Your task to perform on an android device: Search for a new eyeshadow on Sephora Image 0: 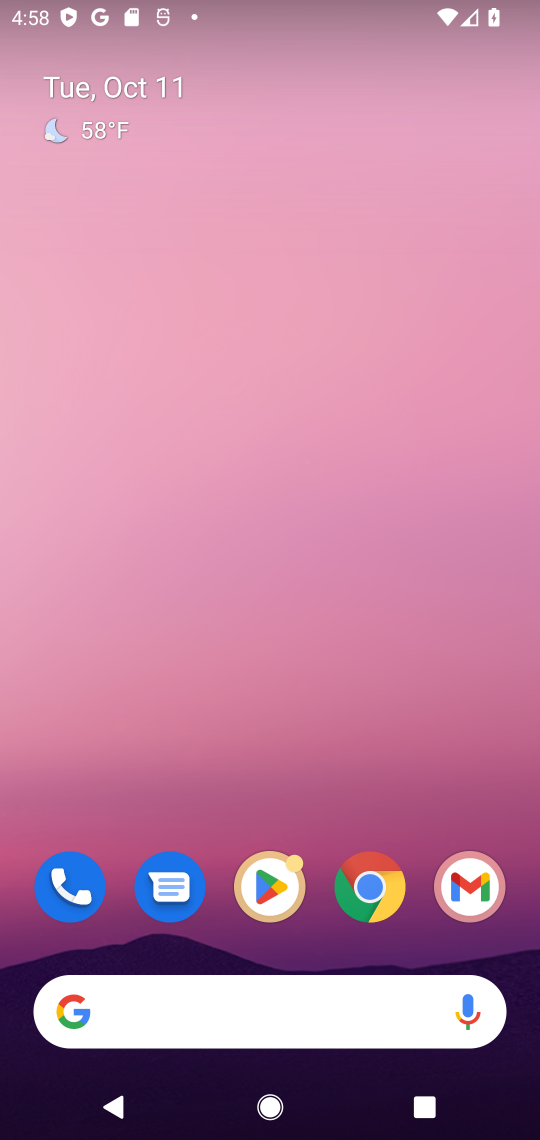
Step 0: click (295, 981)
Your task to perform on an android device: Search for a new eyeshadow on Sephora Image 1: 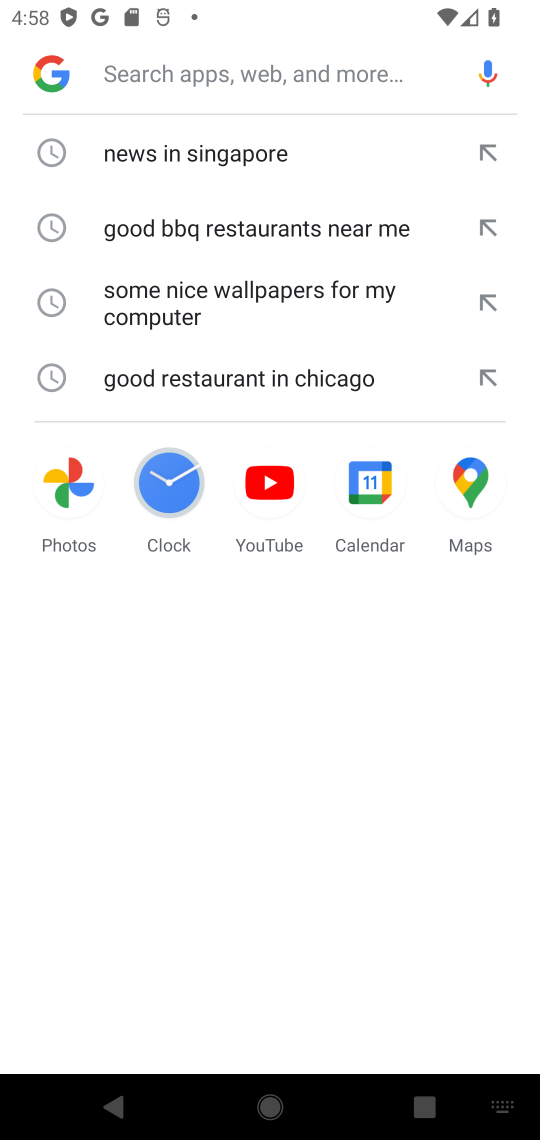
Step 1: type "new eyeshadow on Sephora"
Your task to perform on an android device: Search for a new eyeshadow on Sephora Image 2: 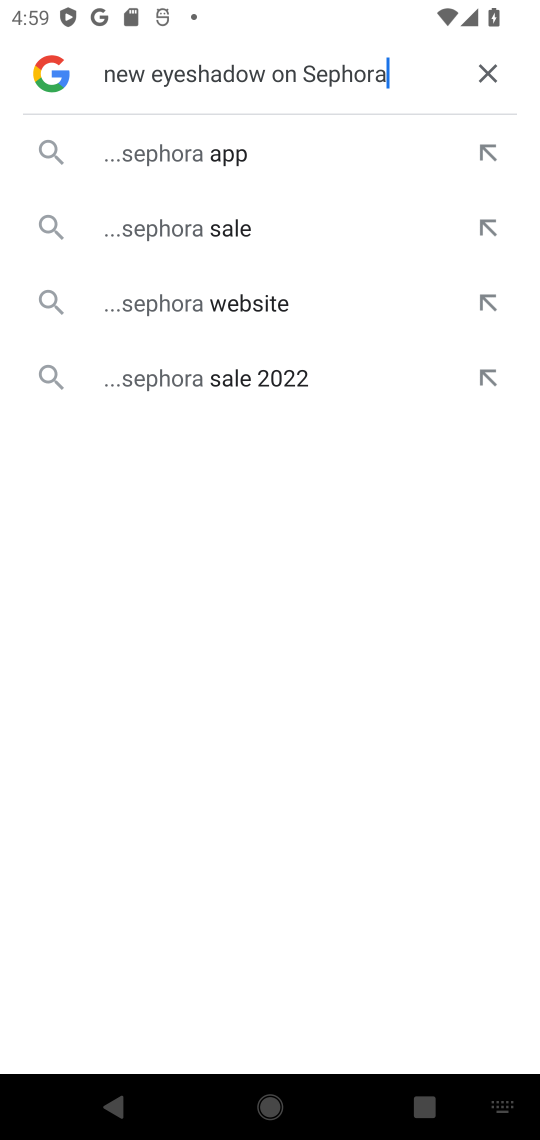
Step 2: press enter
Your task to perform on an android device: Search for a new eyeshadow on Sephora Image 3: 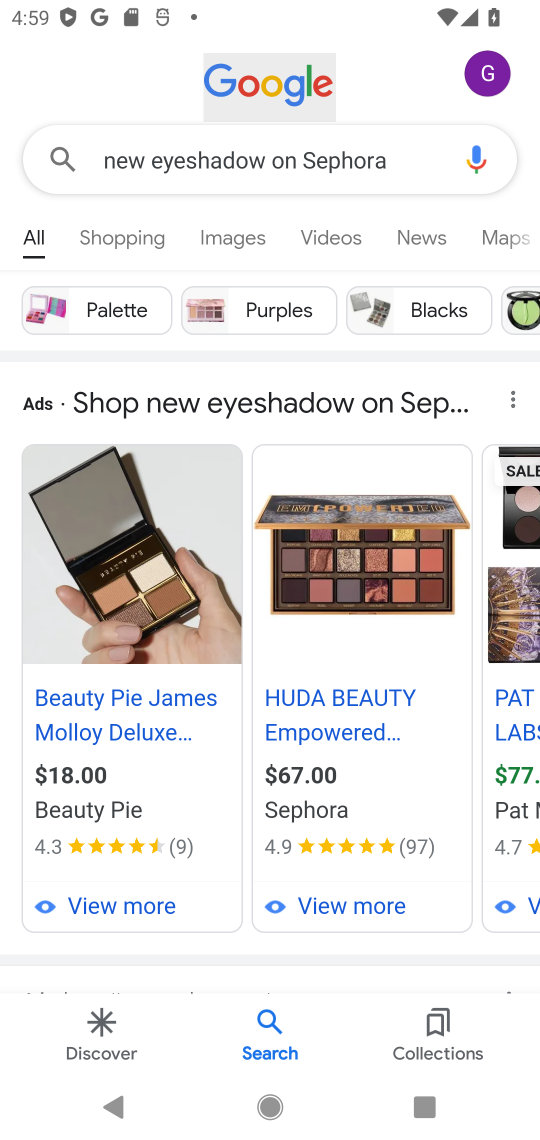
Step 3: drag from (245, 940) to (267, 554)
Your task to perform on an android device: Search for a new eyeshadow on Sephora Image 4: 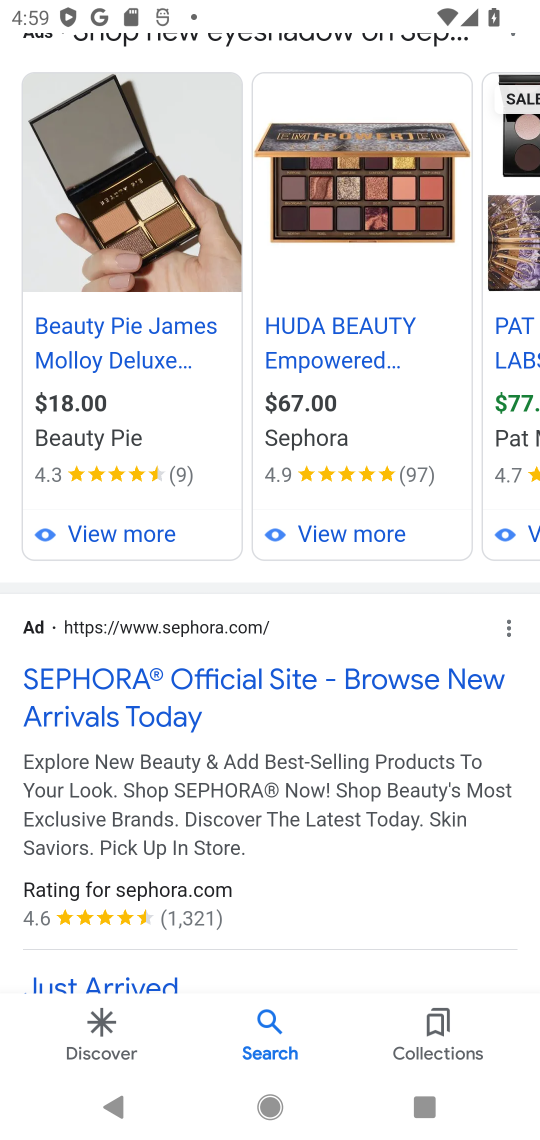
Step 4: click (267, 501)
Your task to perform on an android device: Search for a new eyeshadow on Sephora Image 5: 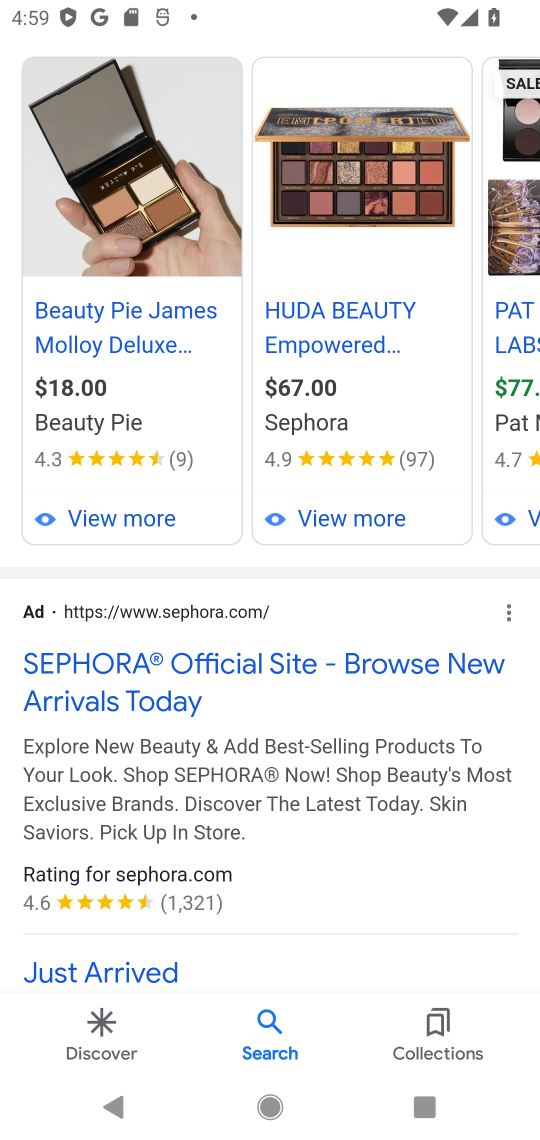
Step 5: drag from (279, 884) to (288, 437)
Your task to perform on an android device: Search for a new eyeshadow on Sephora Image 6: 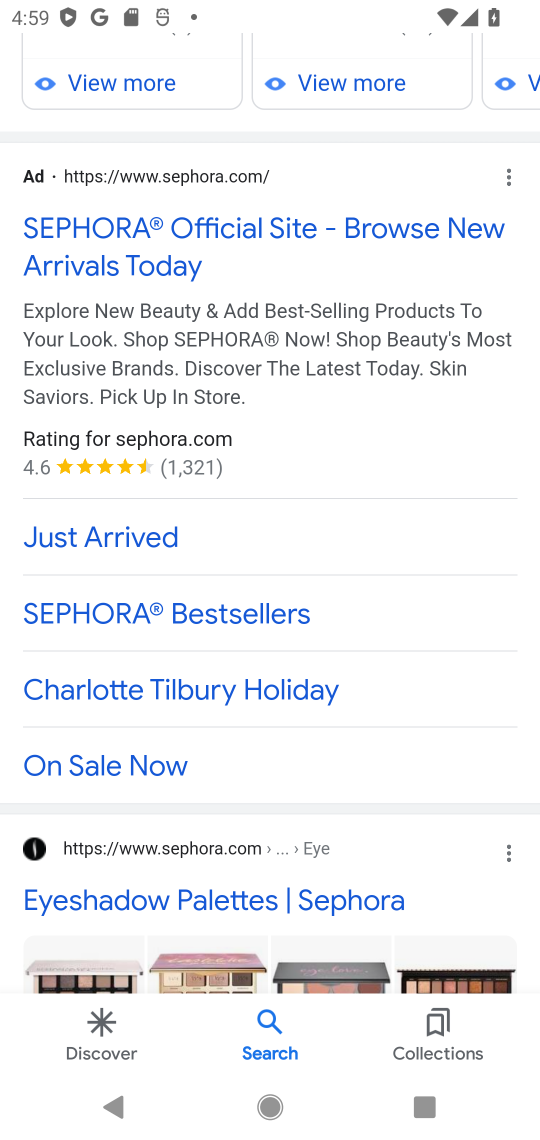
Step 6: drag from (367, 709) to (397, 208)
Your task to perform on an android device: Search for a new eyeshadow on Sephora Image 7: 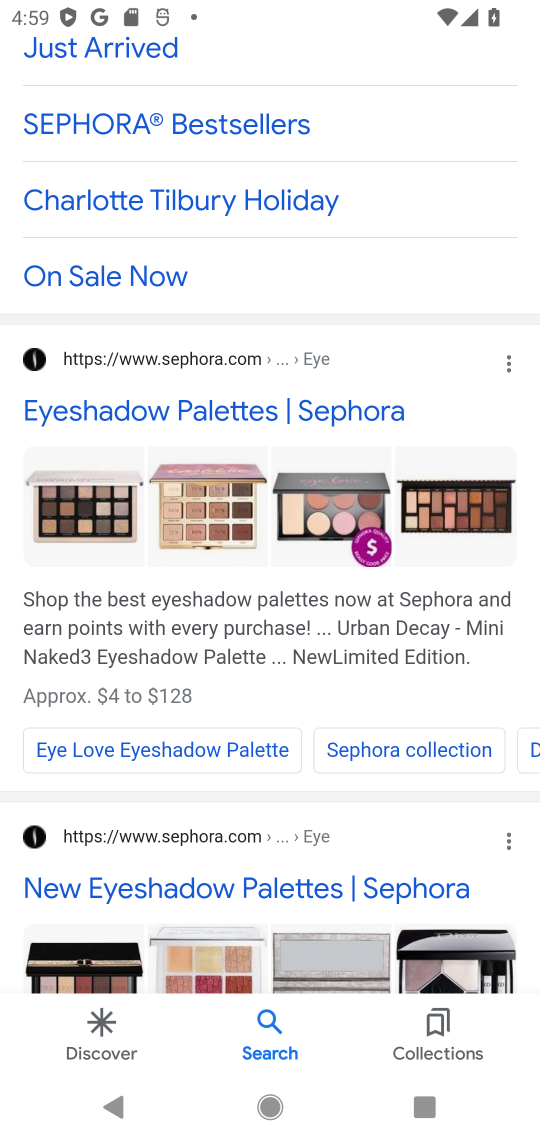
Step 7: click (149, 408)
Your task to perform on an android device: Search for a new eyeshadow on Sephora Image 8: 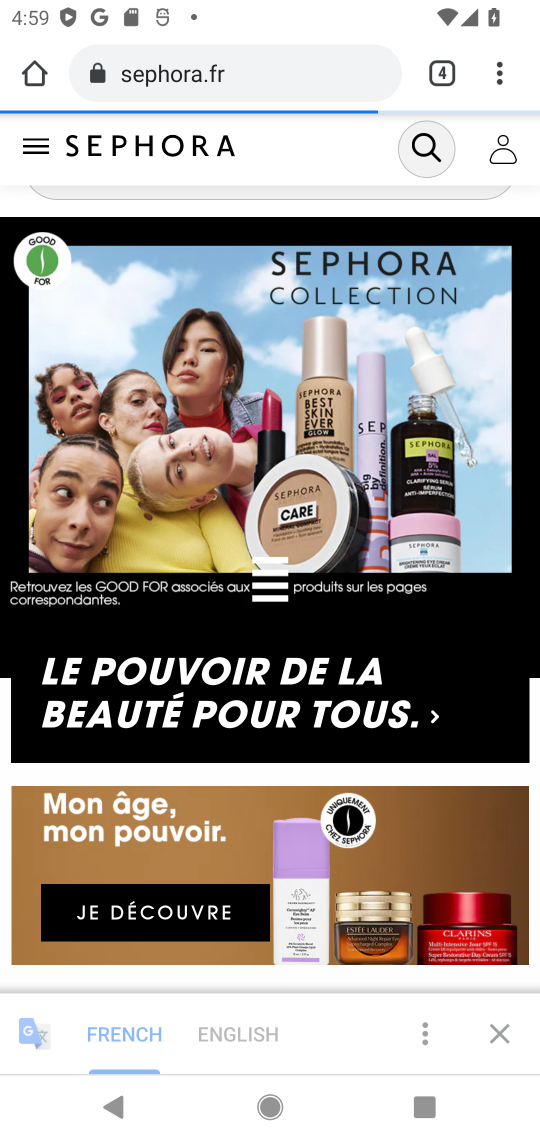
Step 8: drag from (448, 580) to (441, 350)
Your task to perform on an android device: Search for a new eyeshadow on Sephora Image 9: 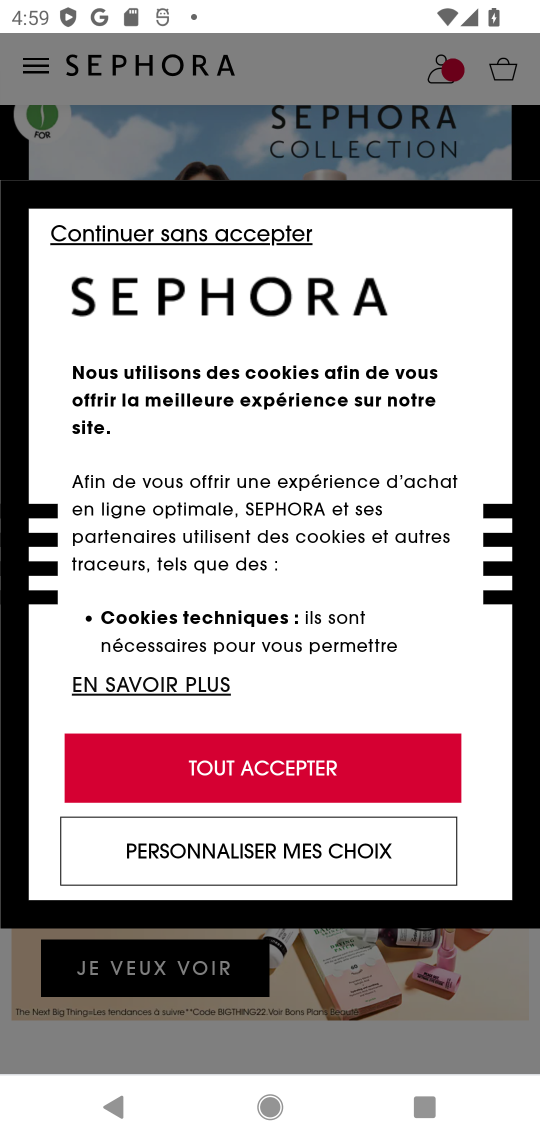
Step 9: click (298, 764)
Your task to perform on an android device: Search for a new eyeshadow on Sephora Image 10: 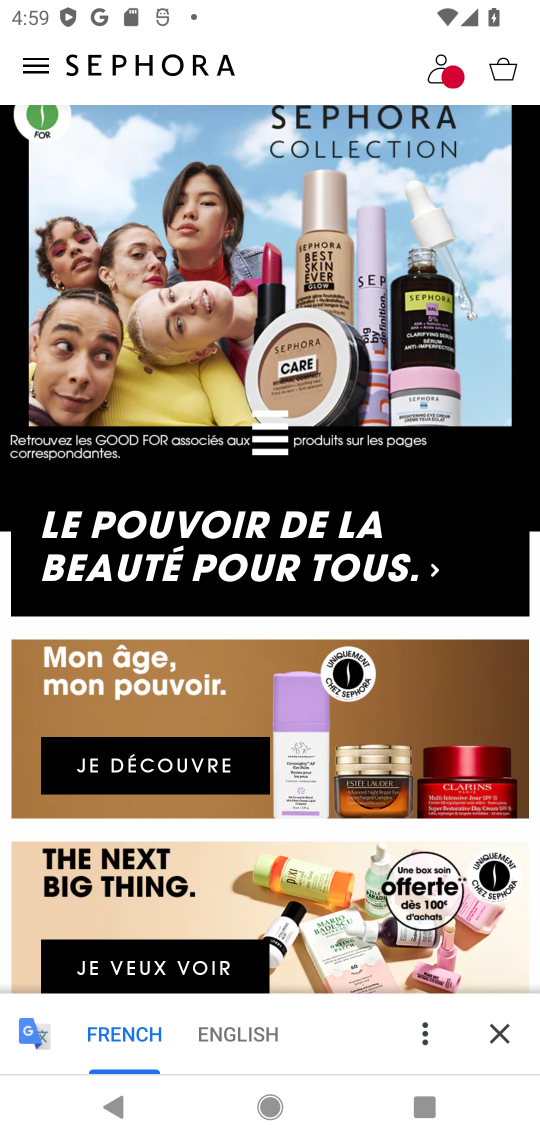
Step 10: drag from (519, 555) to (509, 412)
Your task to perform on an android device: Search for a new eyeshadow on Sephora Image 11: 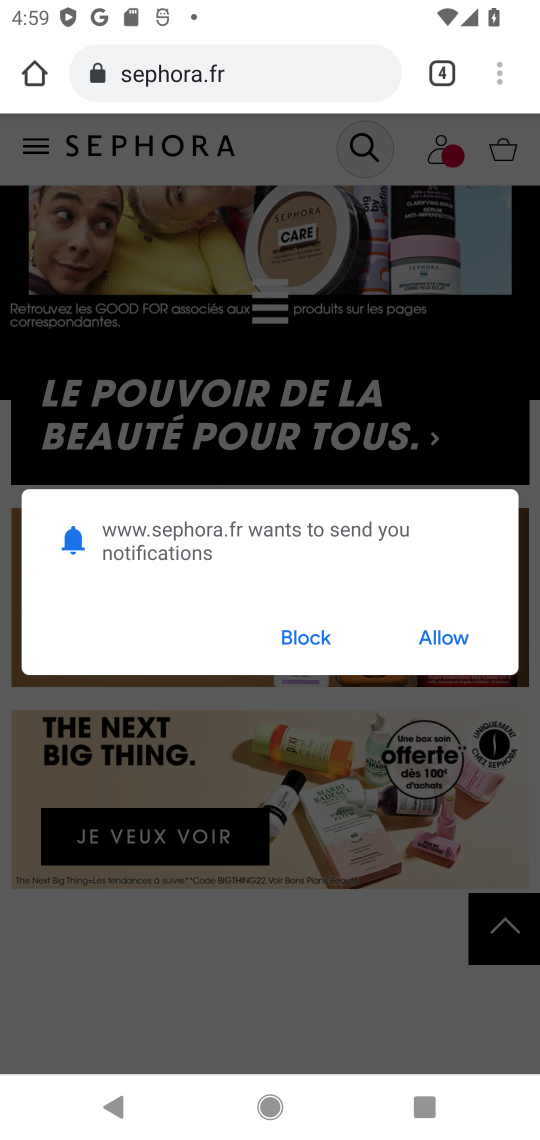
Step 11: click (316, 636)
Your task to perform on an android device: Search for a new eyeshadow on Sephora Image 12: 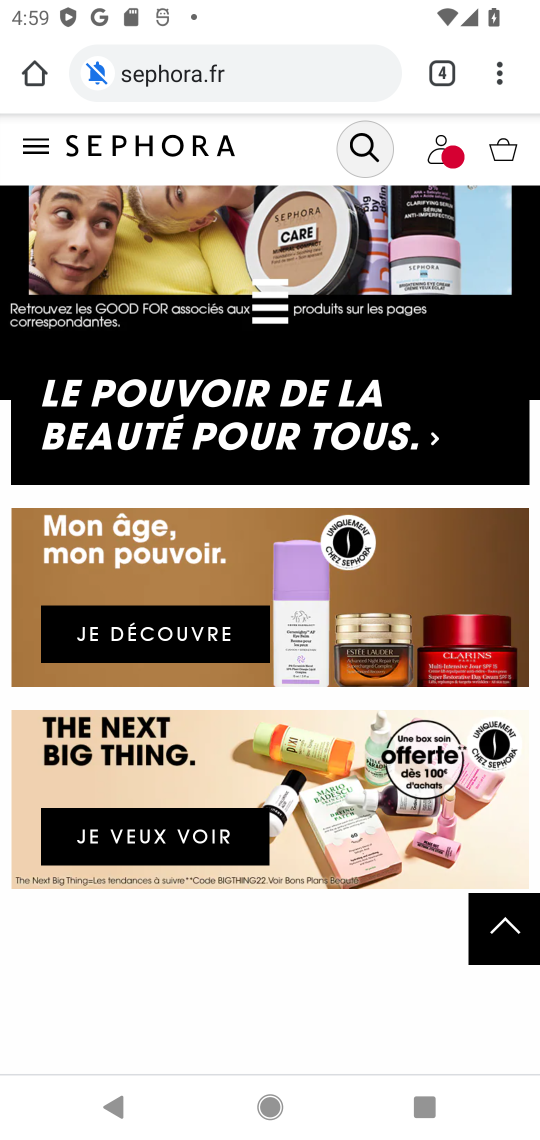
Step 12: task complete